Your task to perform on an android device: Show me the alarms in the clock app Image 0: 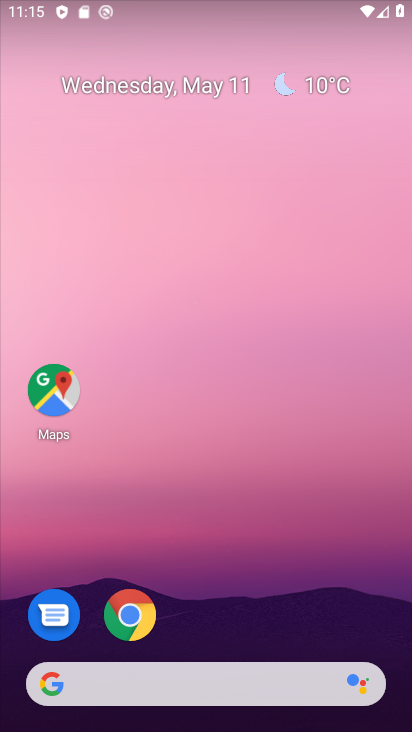
Step 0: drag from (241, 568) to (253, 12)
Your task to perform on an android device: Show me the alarms in the clock app Image 1: 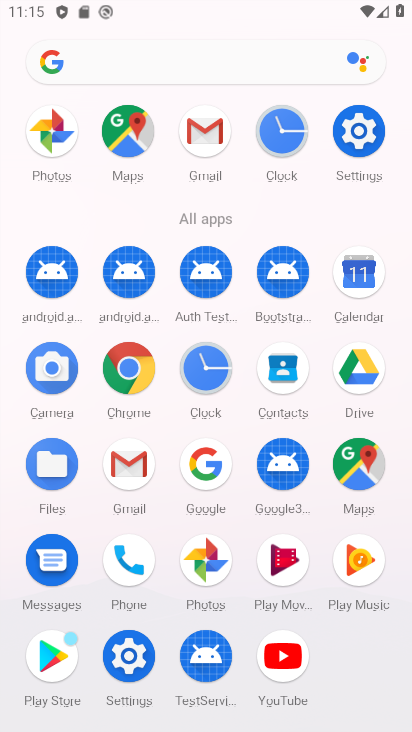
Step 1: click (282, 130)
Your task to perform on an android device: Show me the alarms in the clock app Image 2: 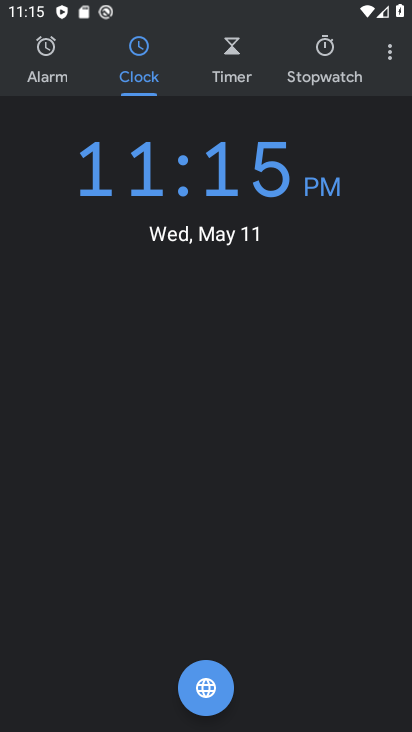
Step 2: click (46, 52)
Your task to perform on an android device: Show me the alarms in the clock app Image 3: 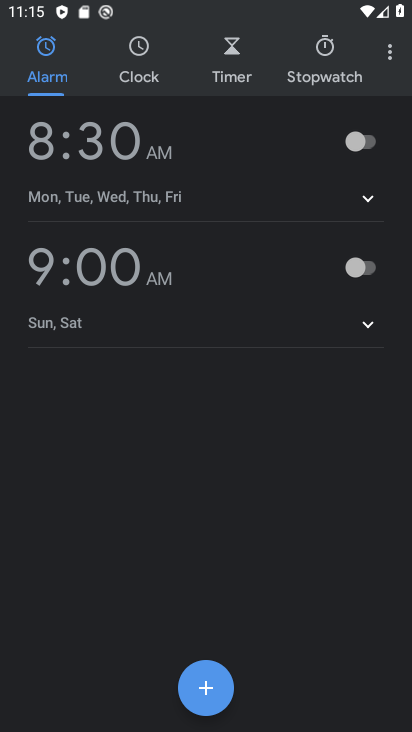
Step 3: task complete